Your task to perform on an android device: add a label to a message in the gmail app Image 0: 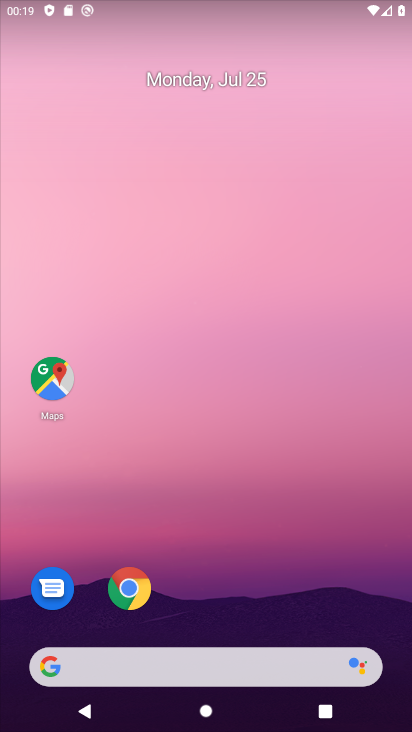
Step 0: drag from (230, 629) to (274, 24)
Your task to perform on an android device: add a label to a message in the gmail app Image 1: 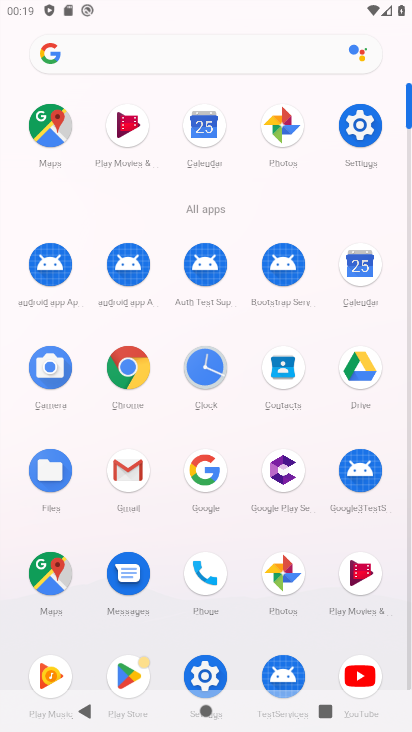
Step 1: click (124, 476)
Your task to perform on an android device: add a label to a message in the gmail app Image 2: 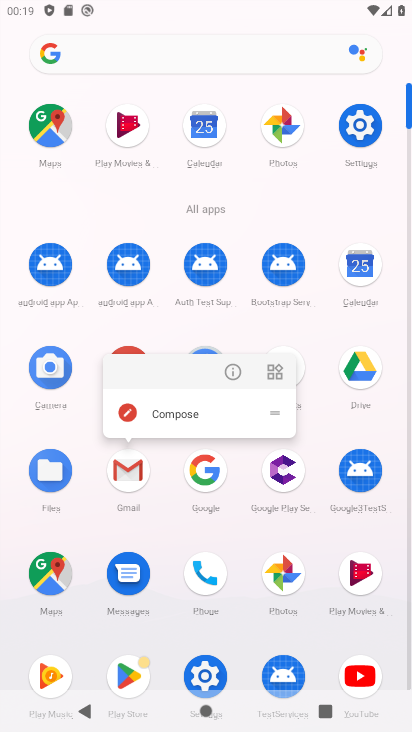
Step 2: click (134, 485)
Your task to perform on an android device: add a label to a message in the gmail app Image 3: 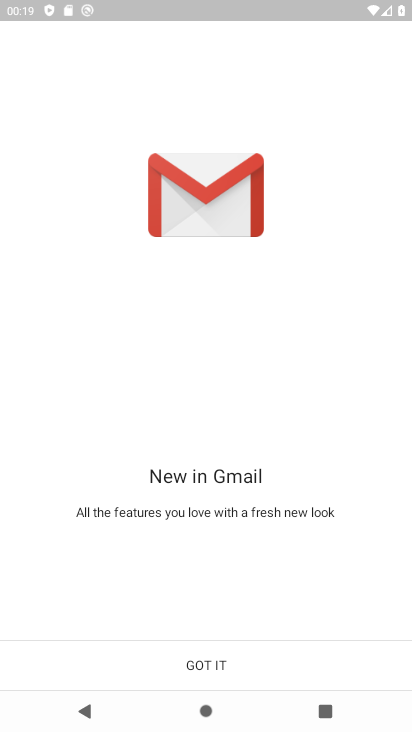
Step 3: click (219, 675)
Your task to perform on an android device: add a label to a message in the gmail app Image 4: 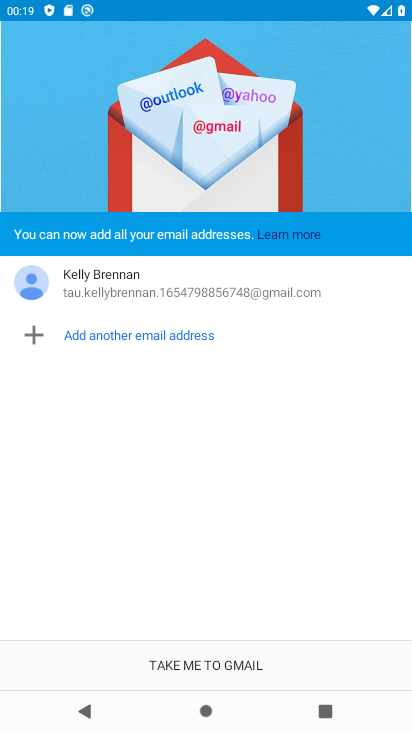
Step 4: click (211, 674)
Your task to perform on an android device: add a label to a message in the gmail app Image 5: 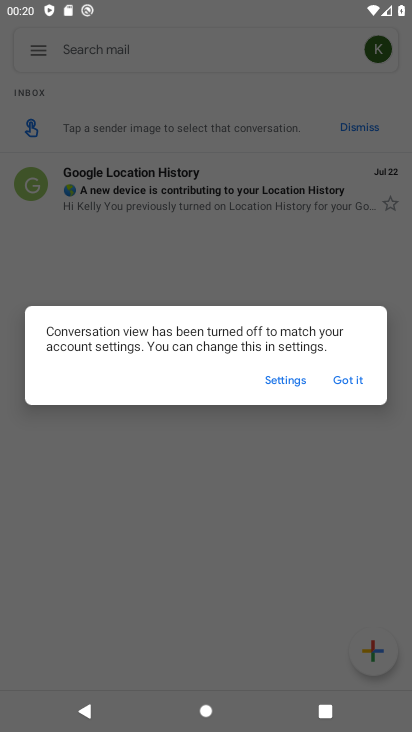
Step 5: click (344, 382)
Your task to perform on an android device: add a label to a message in the gmail app Image 6: 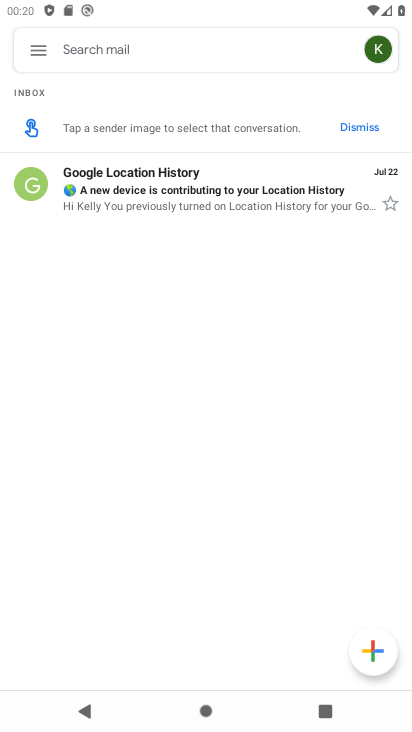
Step 6: click (35, 182)
Your task to perform on an android device: add a label to a message in the gmail app Image 7: 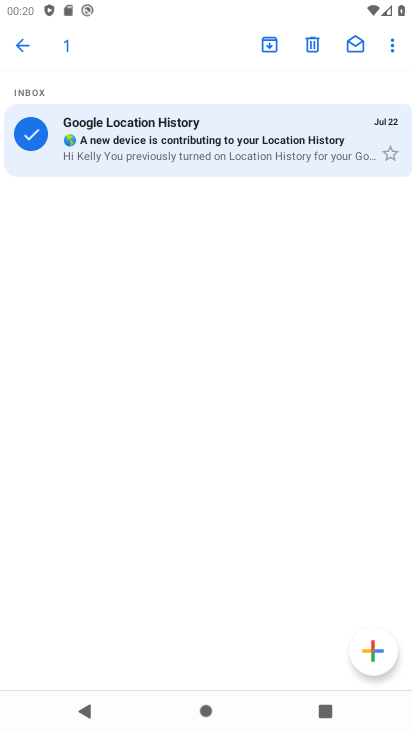
Step 7: click (392, 41)
Your task to perform on an android device: add a label to a message in the gmail app Image 8: 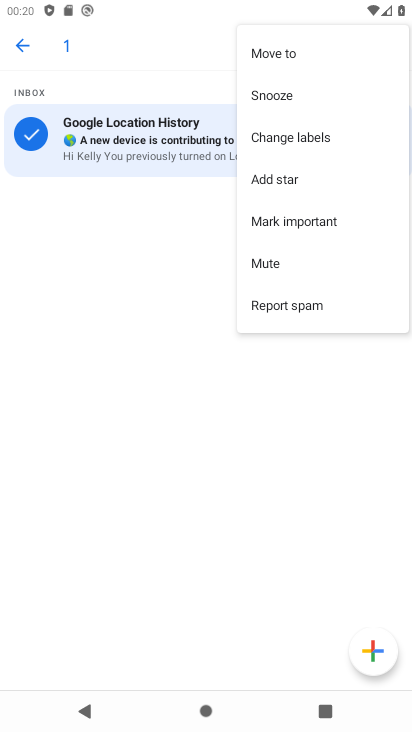
Step 8: click (284, 139)
Your task to perform on an android device: add a label to a message in the gmail app Image 9: 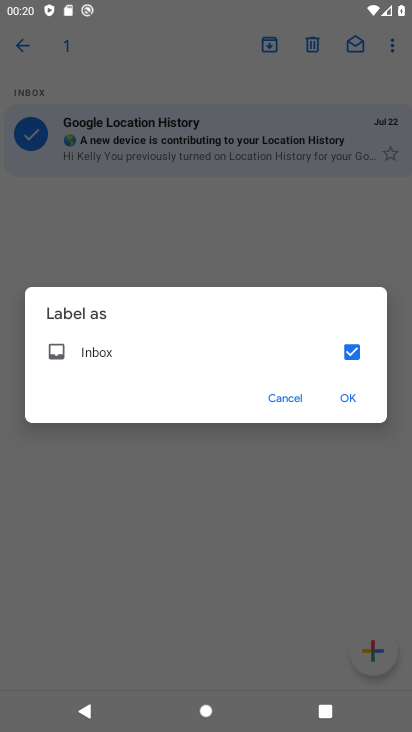
Step 9: click (355, 352)
Your task to perform on an android device: add a label to a message in the gmail app Image 10: 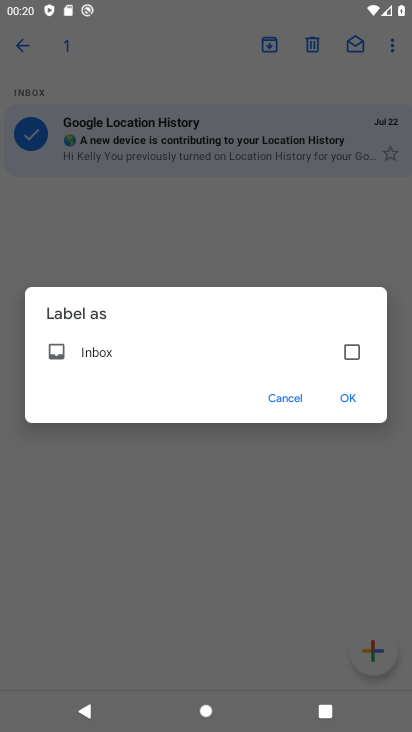
Step 10: click (352, 397)
Your task to perform on an android device: add a label to a message in the gmail app Image 11: 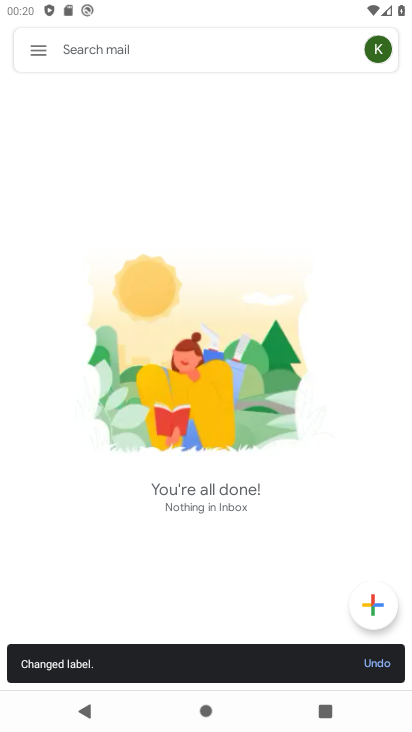
Step 11: task complete